Your task to perform on an android device: empty trash in the gmail app Image 0: 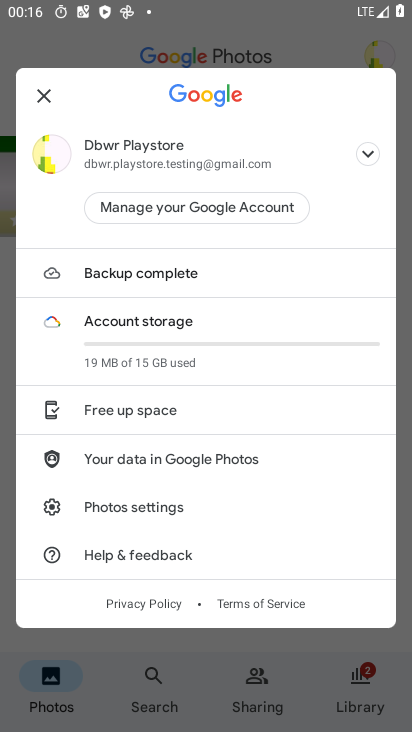
Step 0: press home button
Your task to perform on an android device: empty trash in the gmail app Image 1: 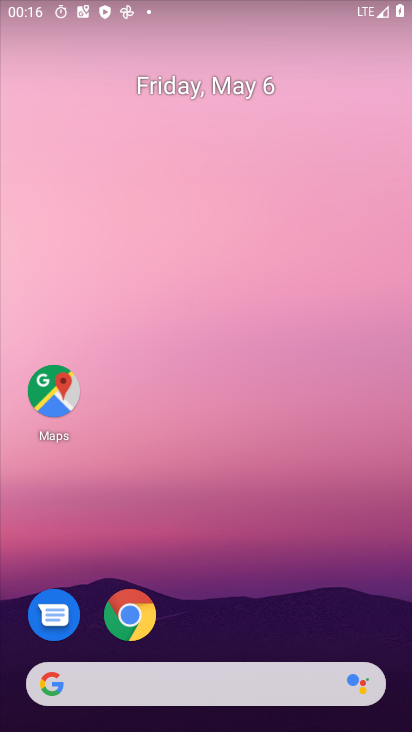
Step 1: drag from (259, 595) to (327, 12)
Your task to perform on an android device: empty trash in the gmail app Image 2: 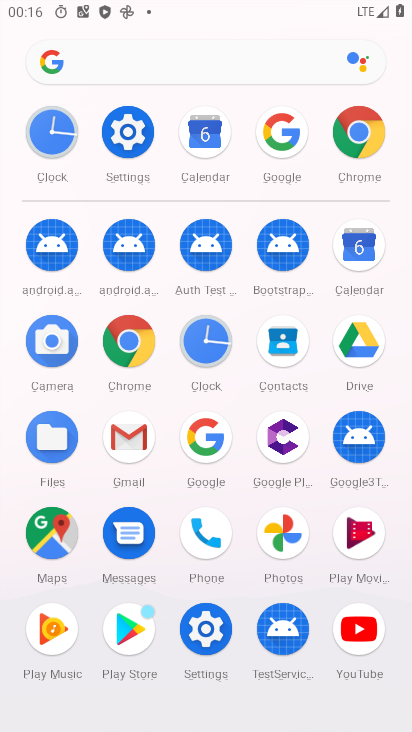
Step 2: click (128, 450)
Your task to perform on an android device: empty trash in the gmail app Image 3: 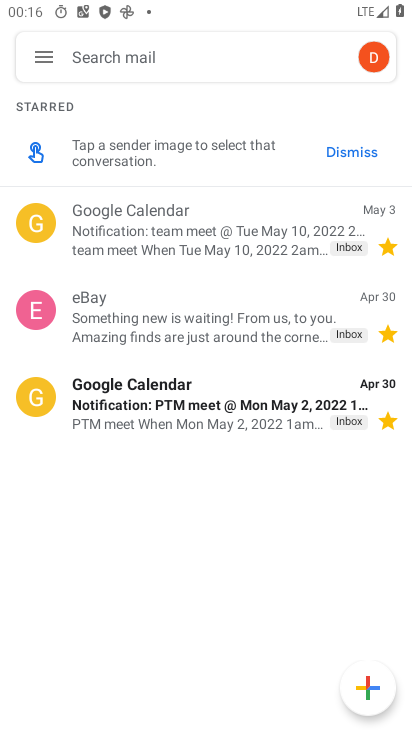
Step 3: click (41, 54)
Your task to perform on an android device: empty trash in the gmail app Image 4: 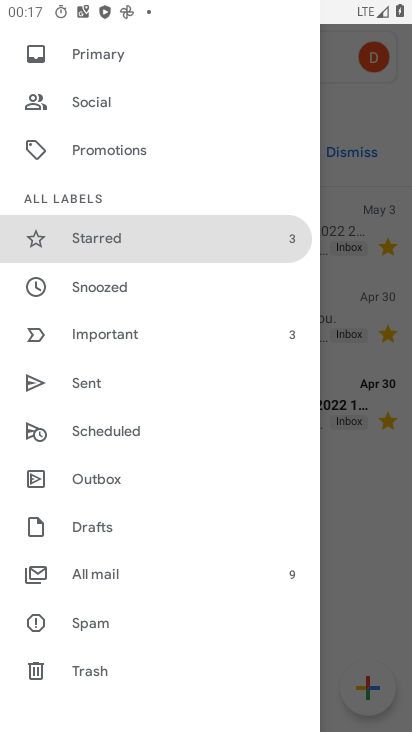
Step 4: drag from (129, 338) to (150, 492)
Your task to perform on an android device: empty trash in the gmail app Image 5: 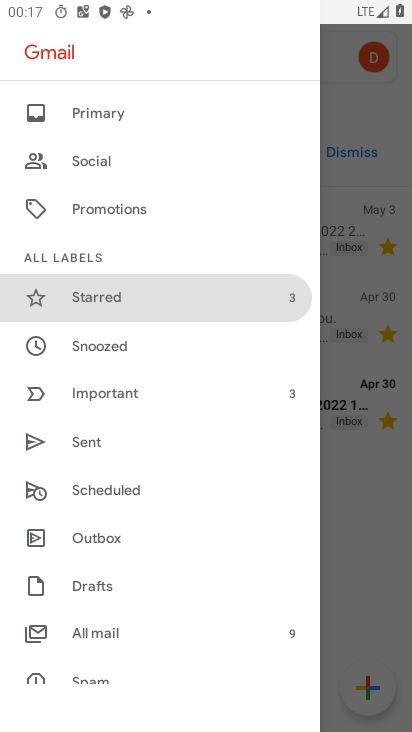
Step 5: drag from (165, 532) to (206, 199)
Your task to perform on an android device: empty trash in the gmail app Image 6: 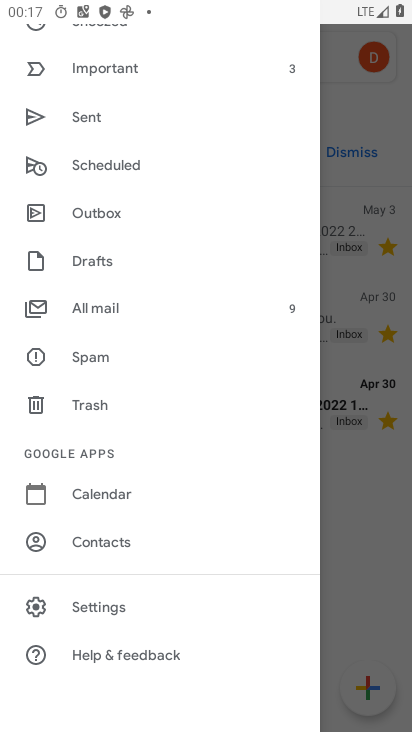
Step 6: click (106, 415)
Your task to perform on an android device: empty trash in the gmail app Image 7: 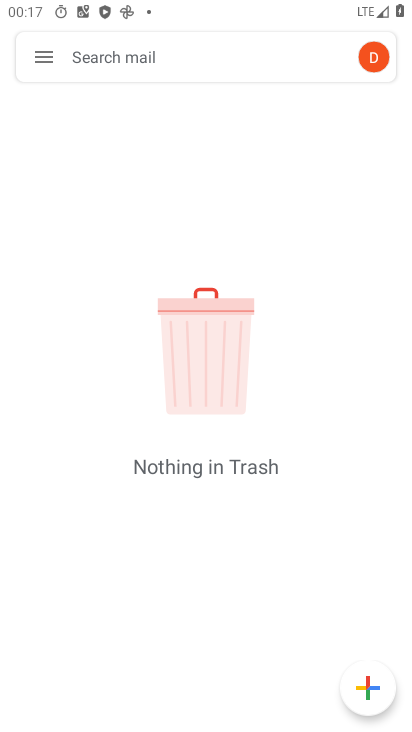
Step 7: task complete